Your task to perform on an android device: stop showing notifications on the lock screen Image 0: 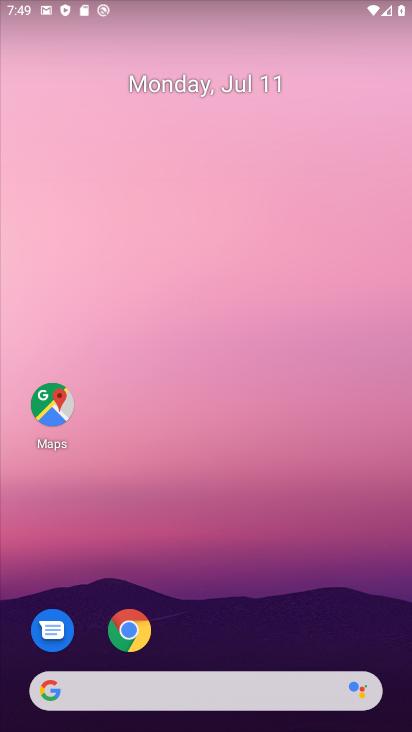
Step 0: drag from (208, 664) to (303, 85)
Your task to perform on an android device: stop showing notifications on the lock screen Image 1: 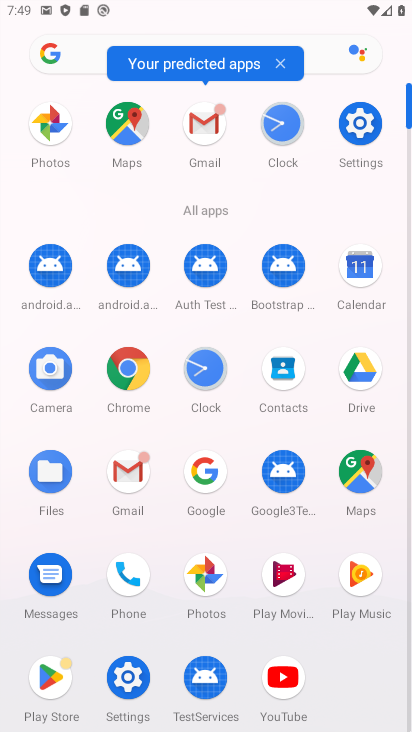
Step 1: click (130, 681)
Your task to perform on an android device: stop showing notifications on the lock screen Image 2: 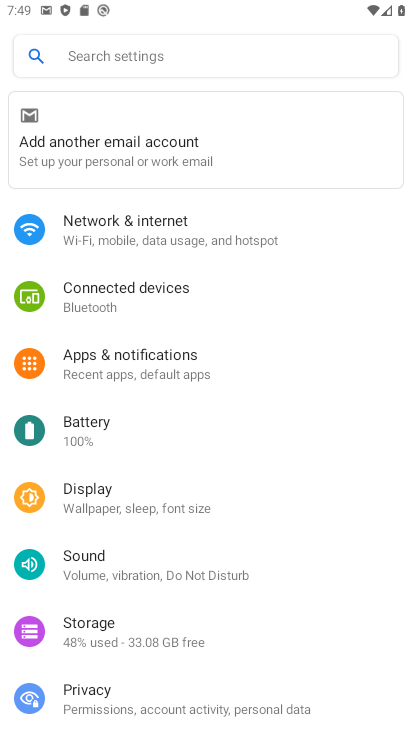
Step 2: drag from (220, 514) to (269, 311)
Your task to perform on an android device: stop showing notifications on the lock screen Image 3: 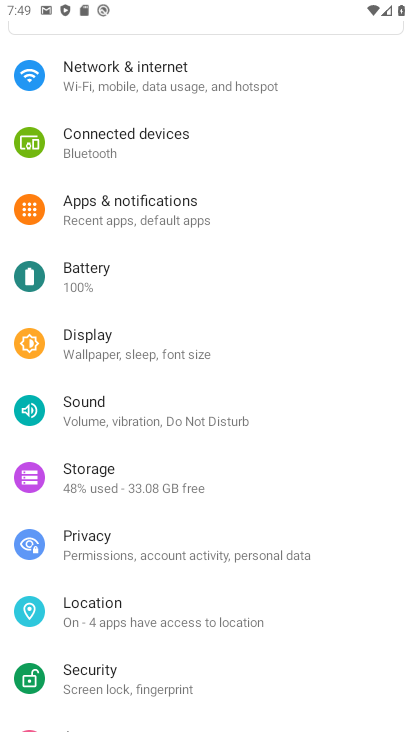
Step 3: click (188, 210)
Your task to perform on an android device: stop showing notifications on the lock screen Image 4: 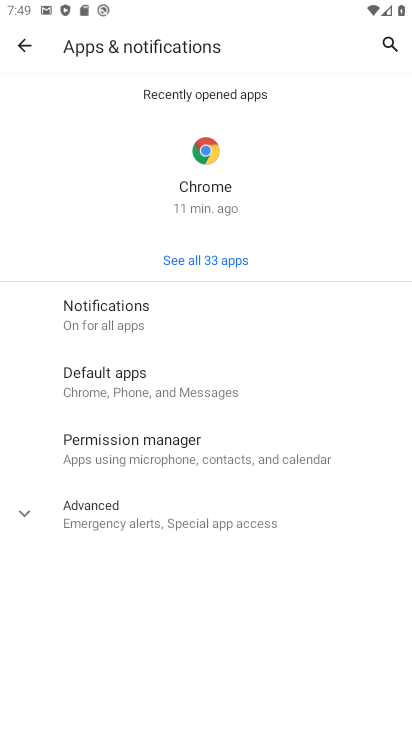
Step 4: click (187, 319)
Your task to perform on an android device: stop showing notifications on the lock screen Image 5: 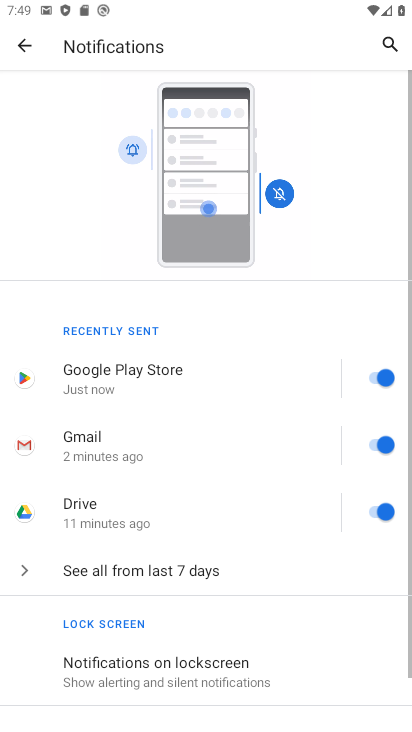
Step 5: drag from (200, 590) to (262, 294)
Your task to perform on an android device: stop showing notifications on the lock screen Image 6: 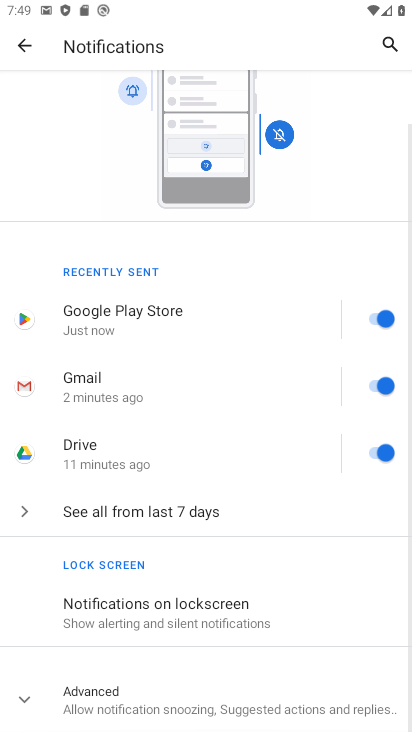
Step 6: click (189, 612)
Your task to perform on an android device: stop showing notifications on the lock screen Image 7: 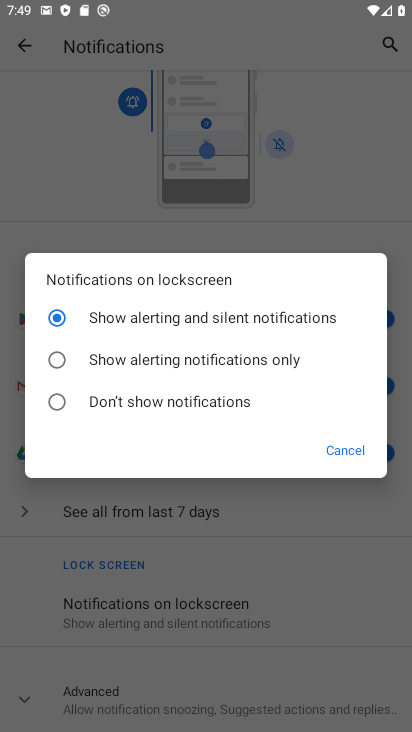
Step 7: click (145, 413)
Your task to perform on an android device: stop showing notifications on the lock screen Image 8: 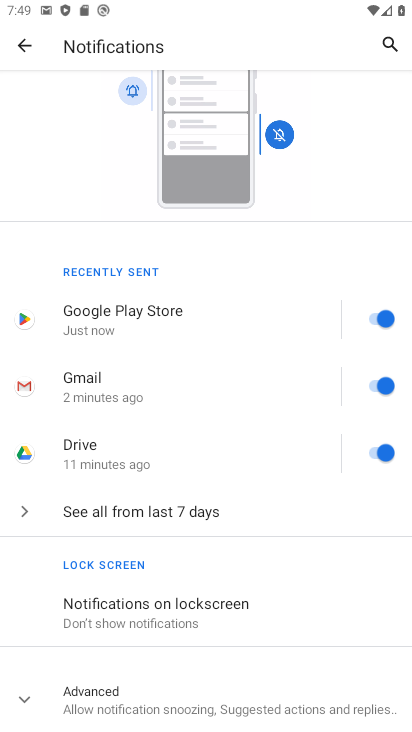
Step 8: task complete